Your task to perform on an android device: toggle javascript in the chrome app Image 0: 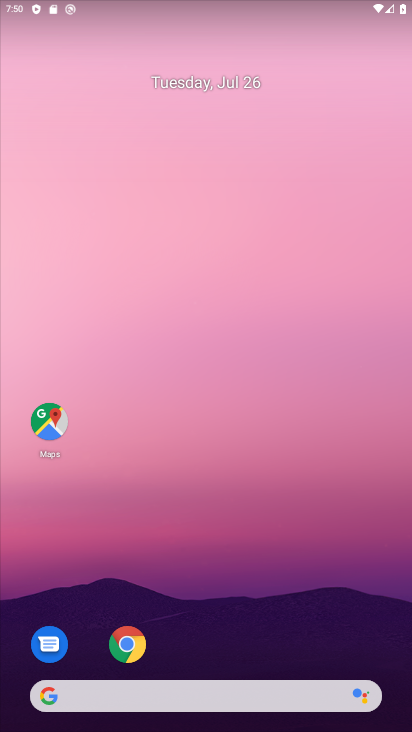
Step 0: drag from (194, 627) to (176, 170)
Your task to perform on an android device: toggle javascript in the chrome app Image 1: 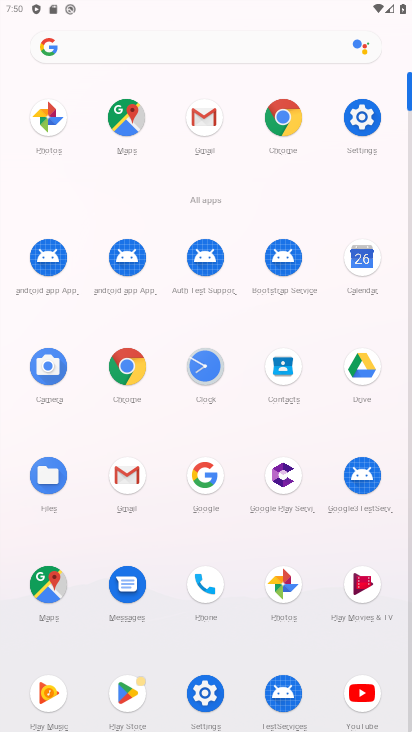
Step 1: click (118, 361)
Your task to perform on an android device: toggle javascript in the chrome app Image 2: 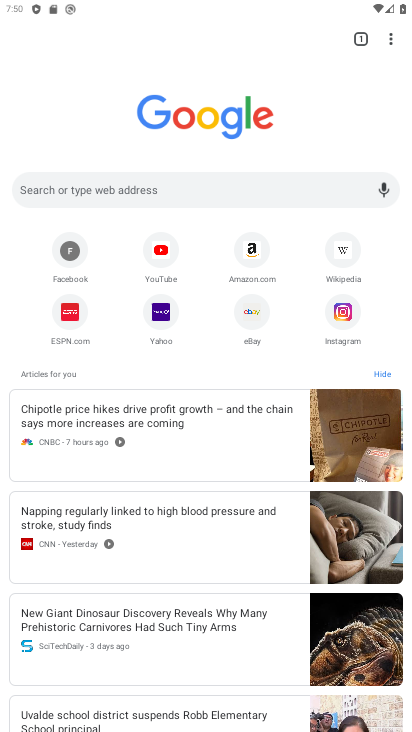
Step 2: click (390, 36)
Your task to perform on an android device: toggle javascript in the chrome app Image 3: 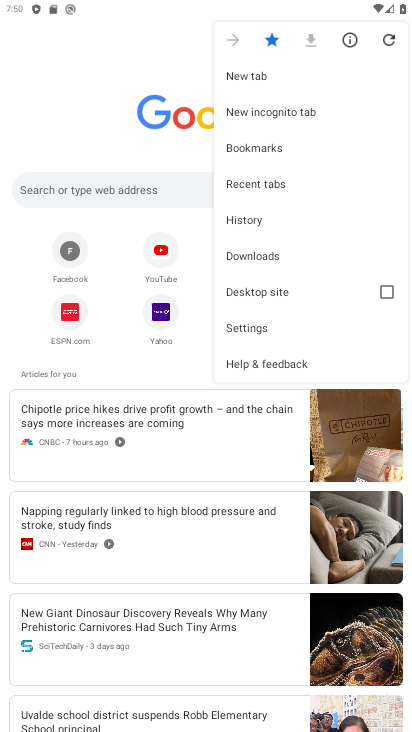
Step 3: click (256, 325)
Your task to perform on an android device: toggle javascript in the chrome app Image 4: 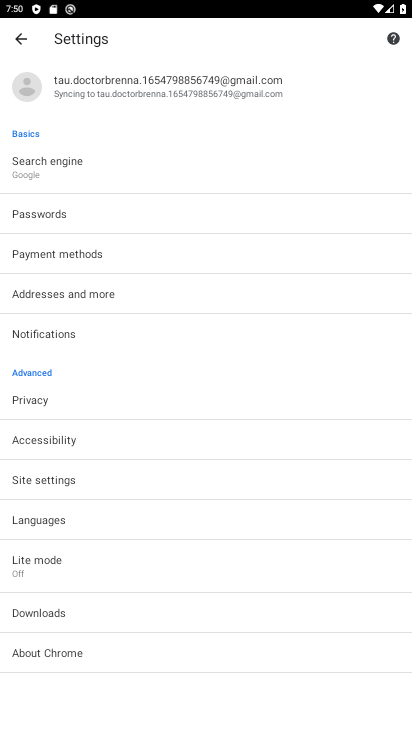
Step 4: click (68, 479)
Your task to perform on an android device: toggle javascript in the chrome app Image 5: 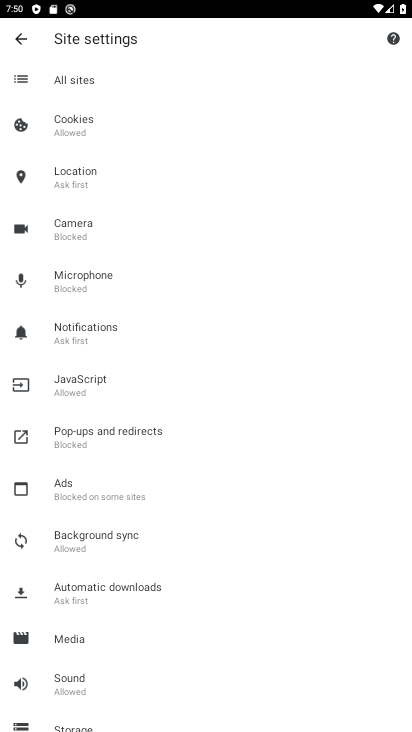
Step 5: click (102, 386)
Your task to perform on an android device: toggle javascript in the chrome app Image 6: 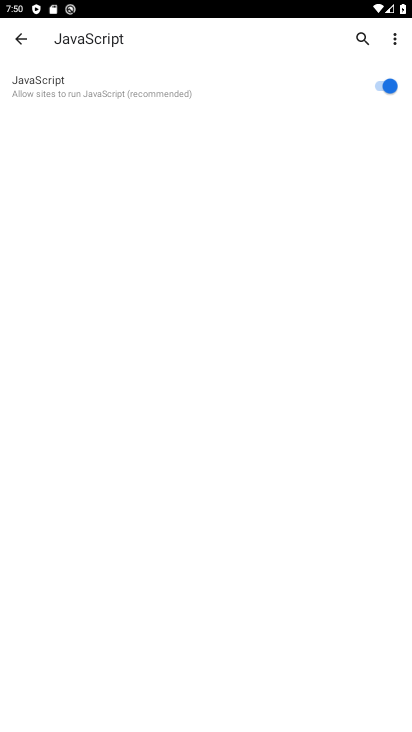
Step 6: click (387, 80)
Your task to perform on an android device: toggle javascript in the chrome app Image 7: 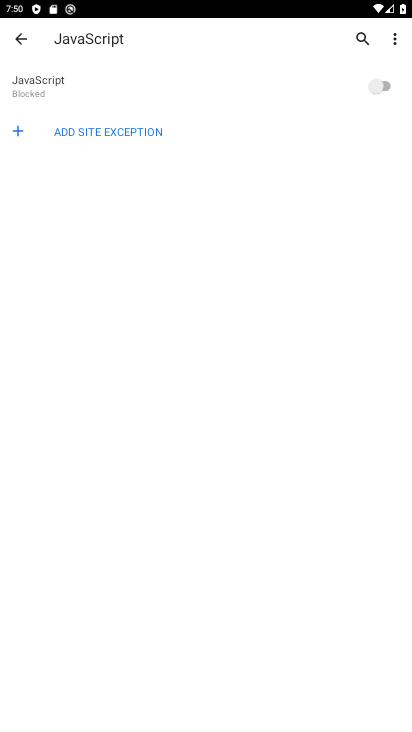
Step 7: task complete